Your task to perform on an android device: Open Google Maps and go to "Timeline" Image 0: 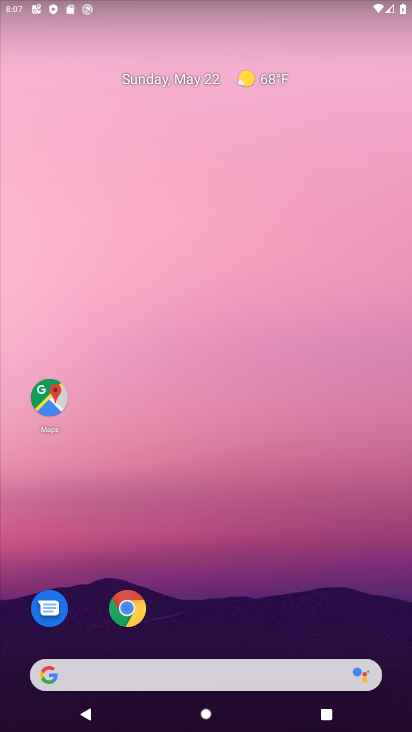
Step 0: drag from (196, 724) to (177, 175)
Your task to perform on an android device: Open Google Maps and go to "Timeline" Image 1: 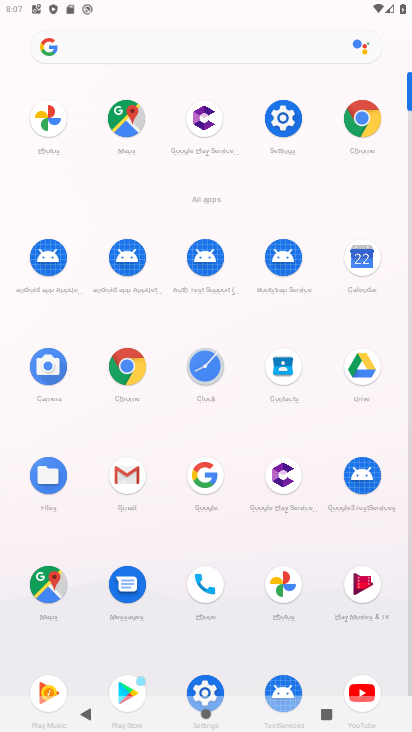
Step 1: click (38, 584)
Your task to perform on an android device: Open Google Maps and go to "Timeline" Image 2: 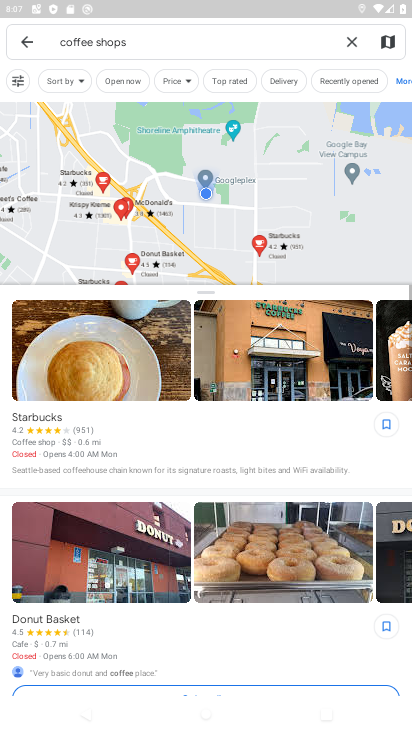
Step 2: click (24, 40)
Your task to perform on an android device: Open Google Maps and go to "Timeline" Image 3: 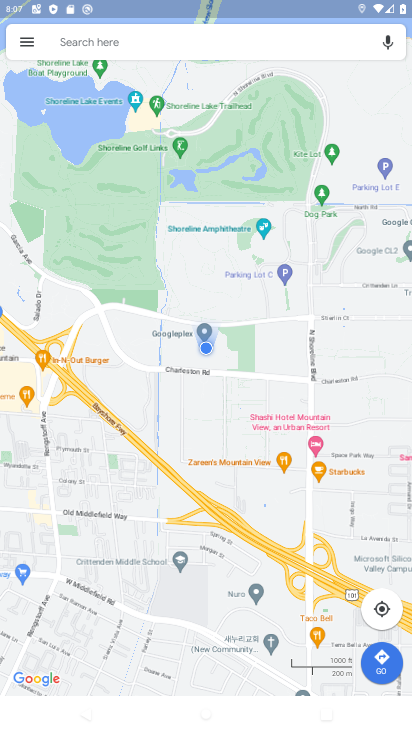
Step 3: click (21, 42)
Your task to perform on an android device: Open Google Maps and go to "Timeline" Image 4: 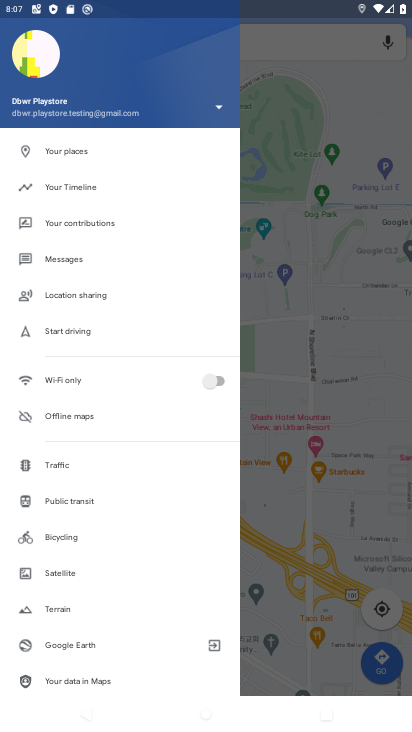
Step 4: click (76, 181)
Your task to perform on an android device: Open Google Maps and go to "Timeline" Image 5: 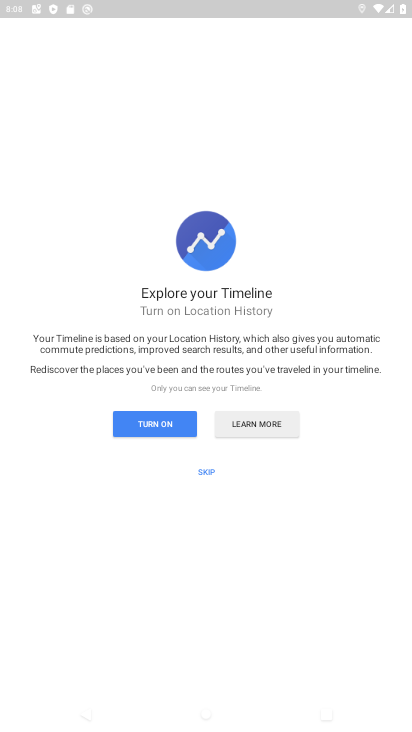
Step 5: click (201, 473)
Your task to perform on an android device: Open Google Maps and go to "Timeline" Image 6: 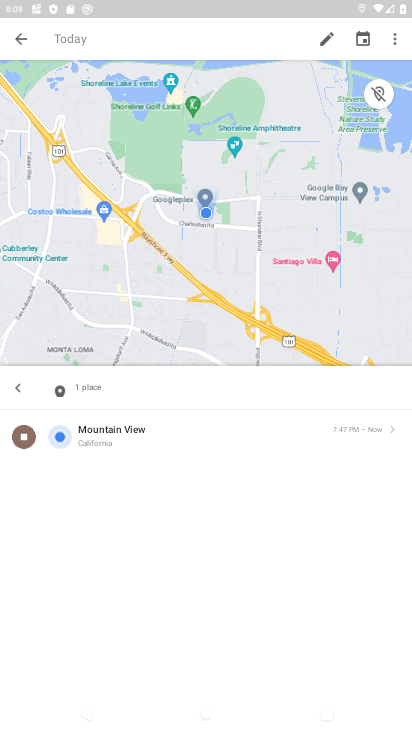
Step 6: task complete